Your task to perform on an android device: Go to wifi settings Image 0: 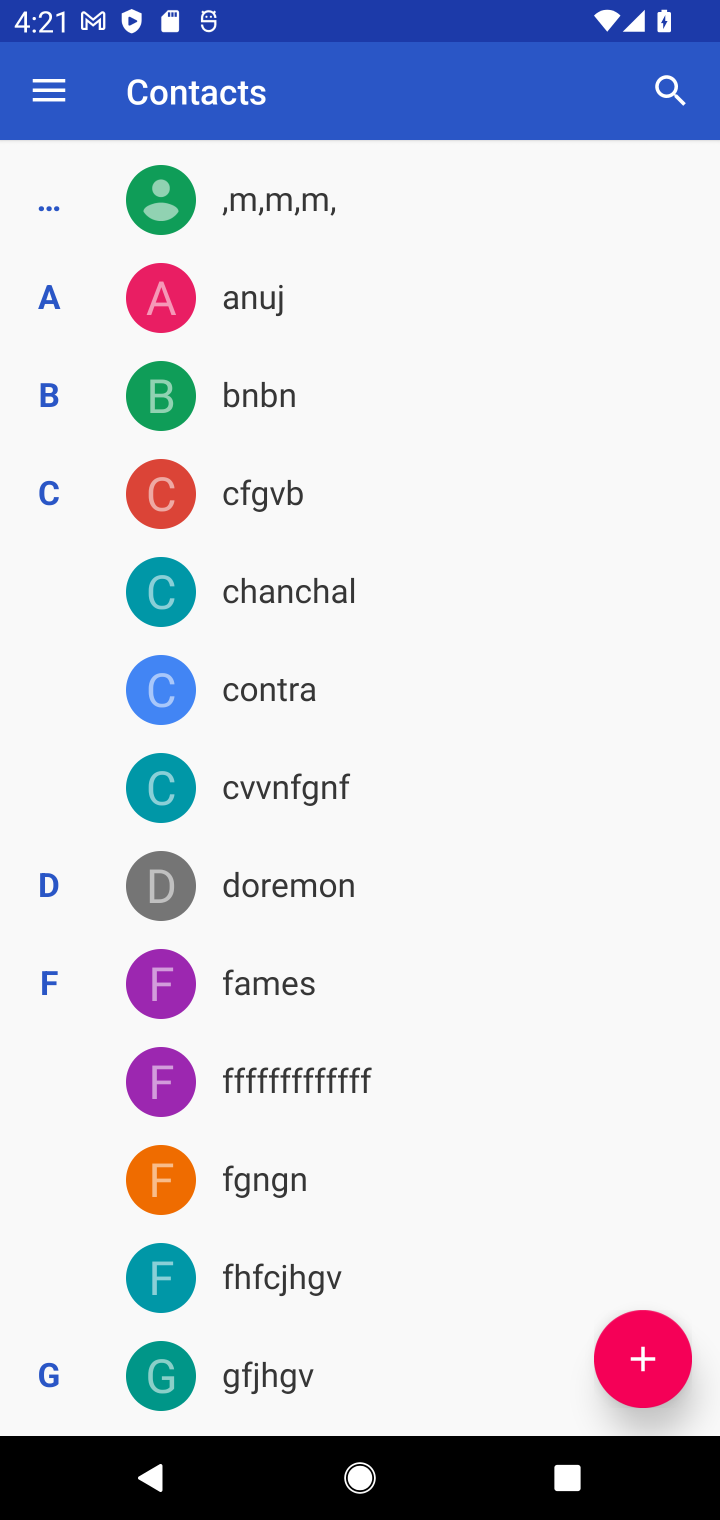
Step 0: press home button
Your task to perform on an android device: Go to wifi settings Image 1: 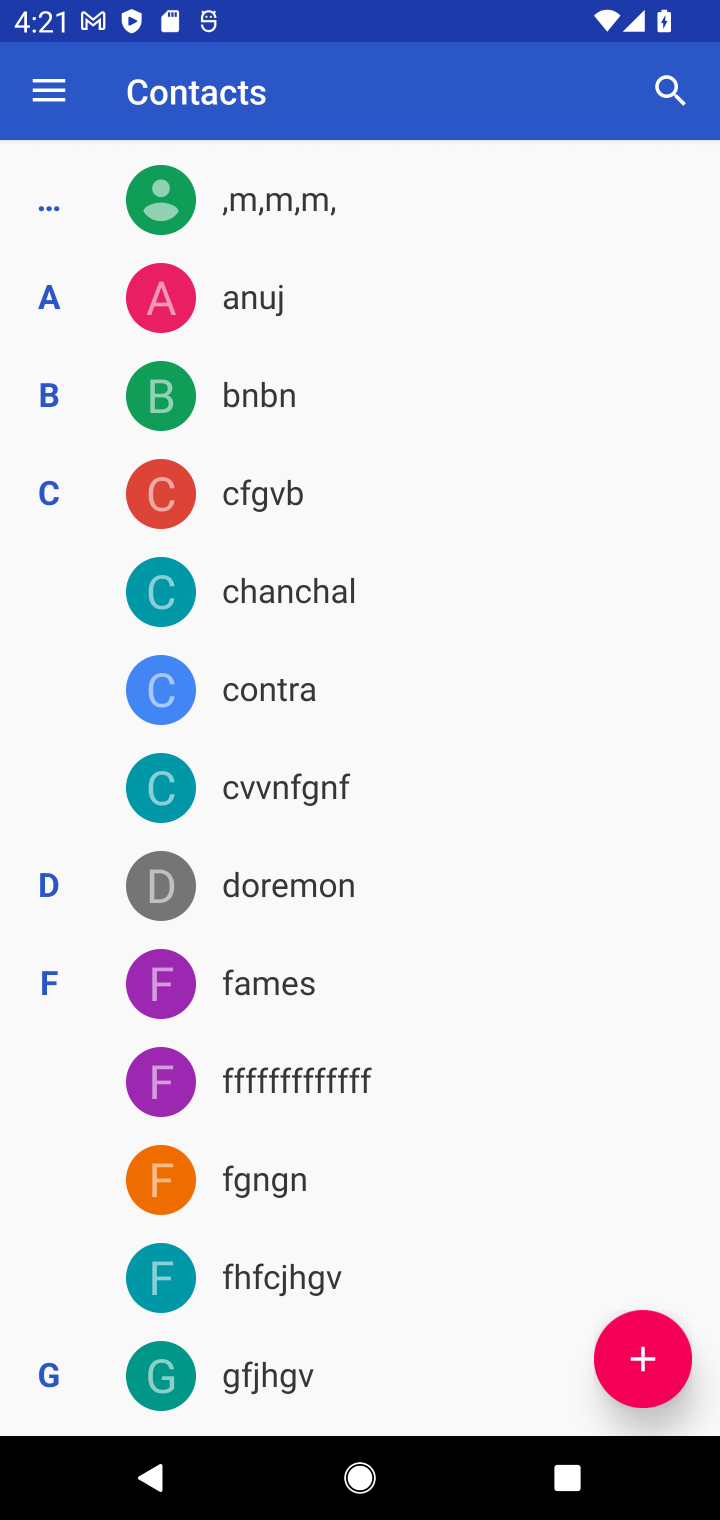
Step 1: press home button
Your task to perform on an android device: Go to wifi settings Image 2: 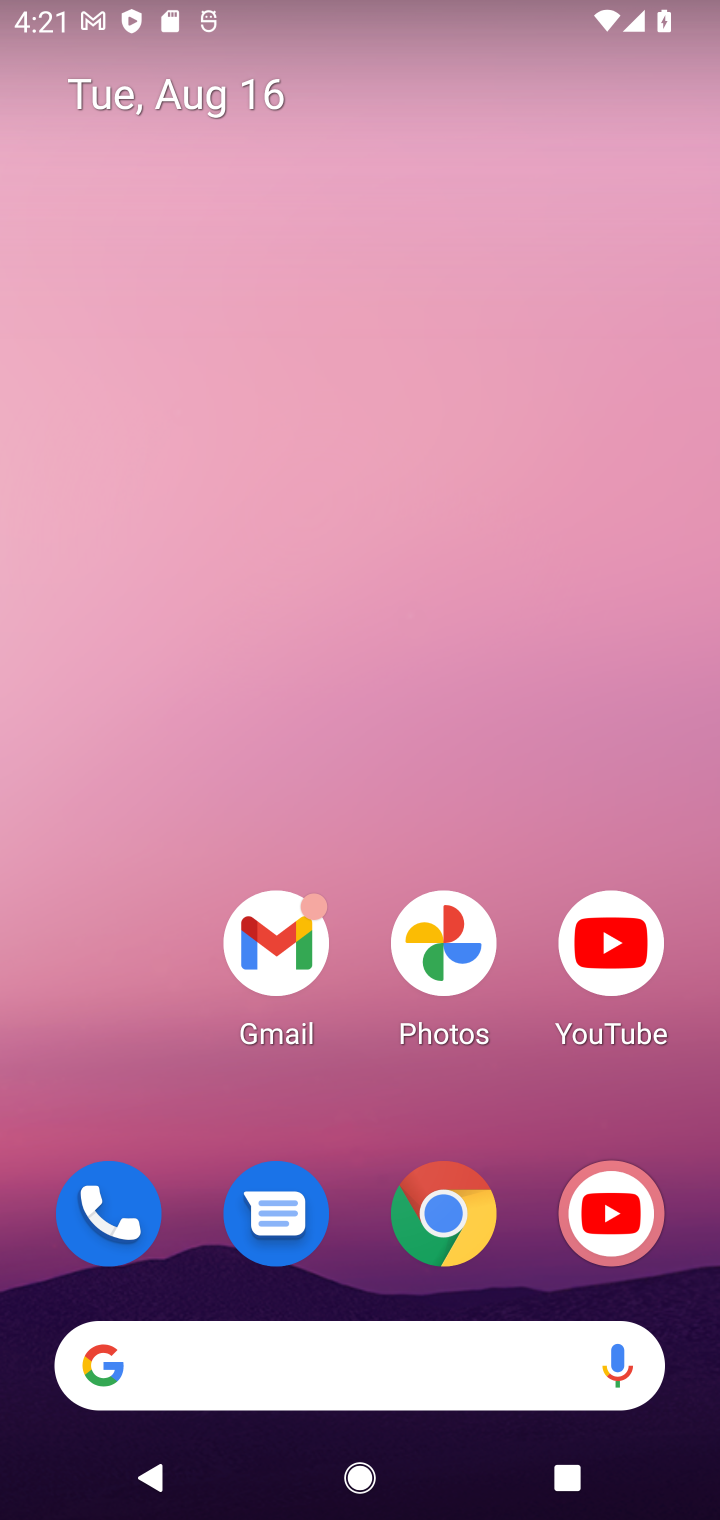
Step 2: drag from (396, 1102) to (422, 1)
Your task to perform on an android device: Go to wifi settings Image 3: 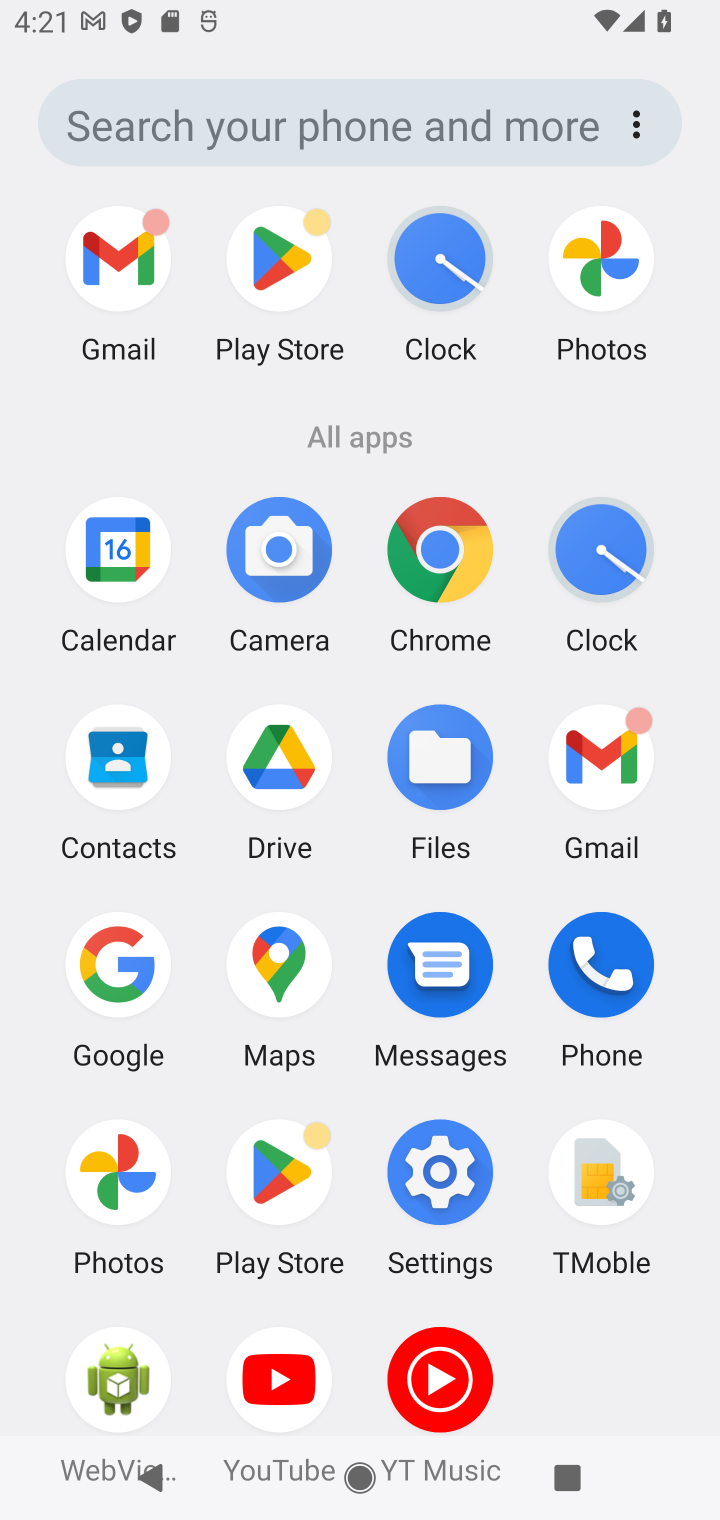
Step 3: click (453, 1158)
Your task to perform on an android device: Go to wifi settings Image 4: 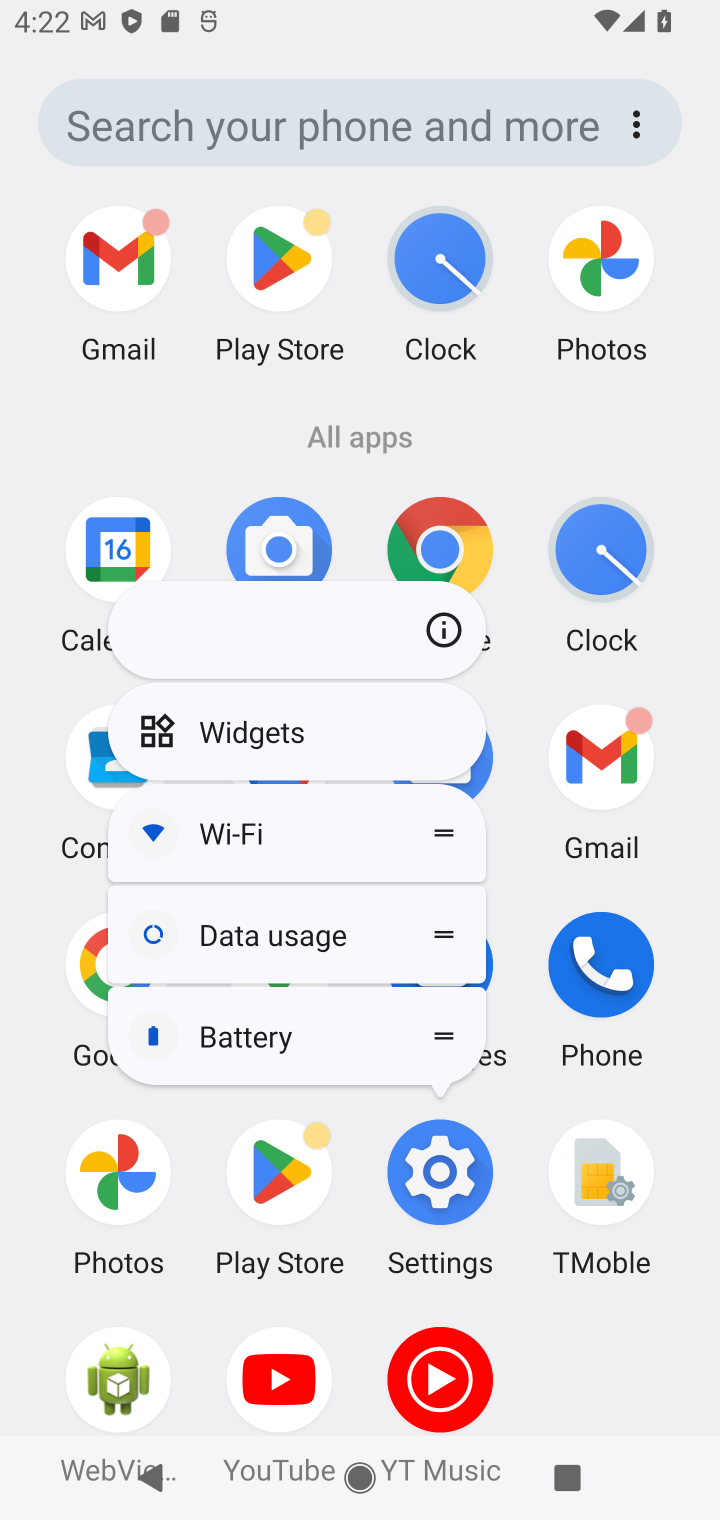
Step 4: click (453, 1158)
Your task to perform on an android device: Go to wifi settings Image 5: 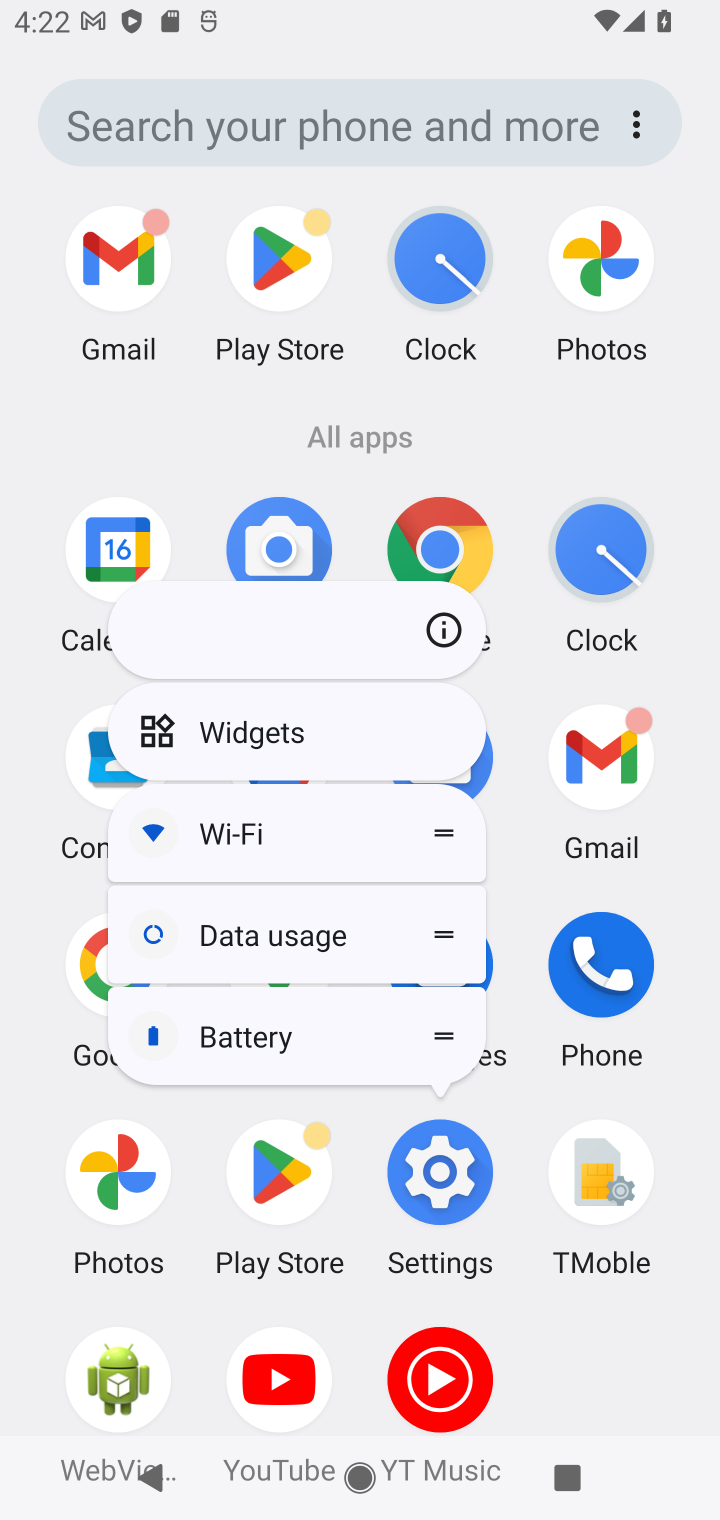
Step 5: click (422, 1167)
Your task to perform on an android device: Go to wifi settings Image 6: 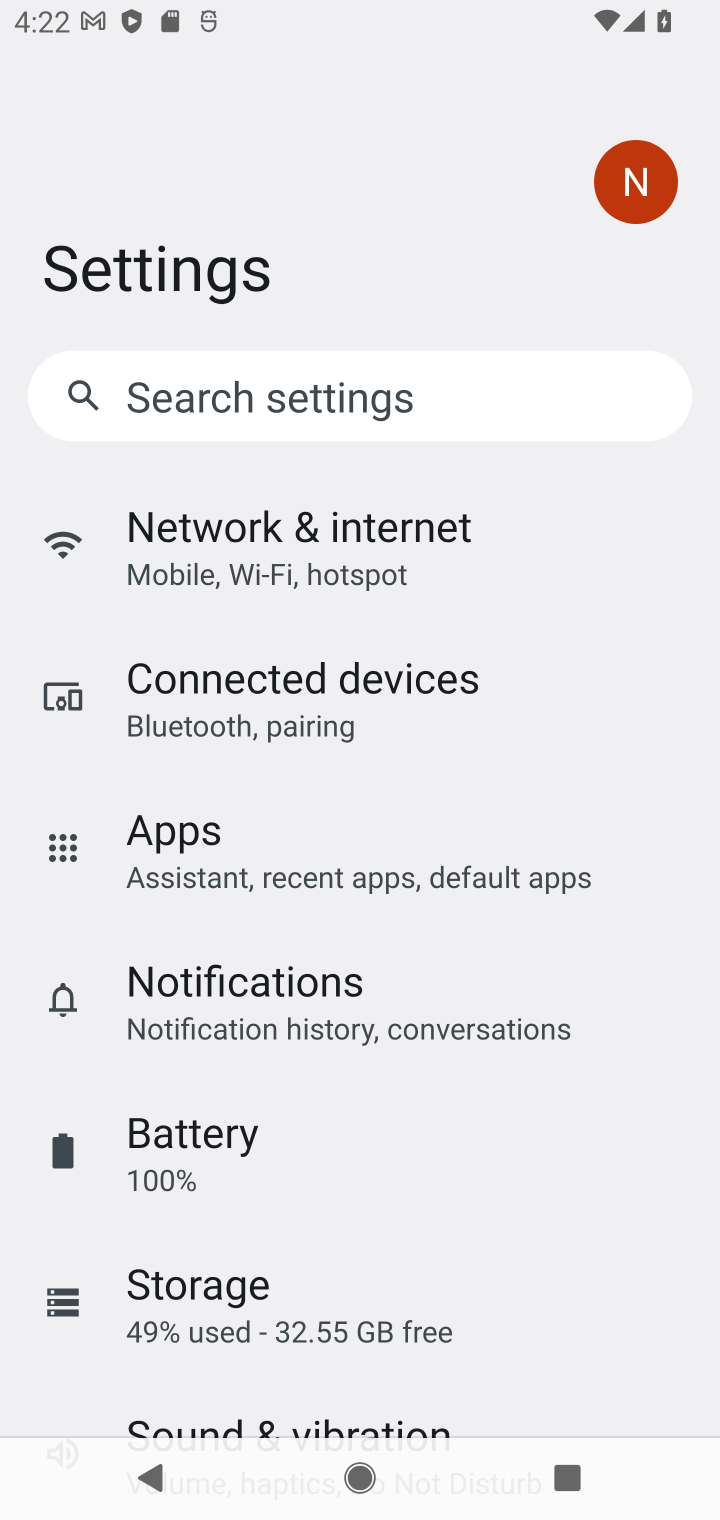
Step 6: click (325, 537)
Your task to perform on an android device: Go to wifi settings Image 7: 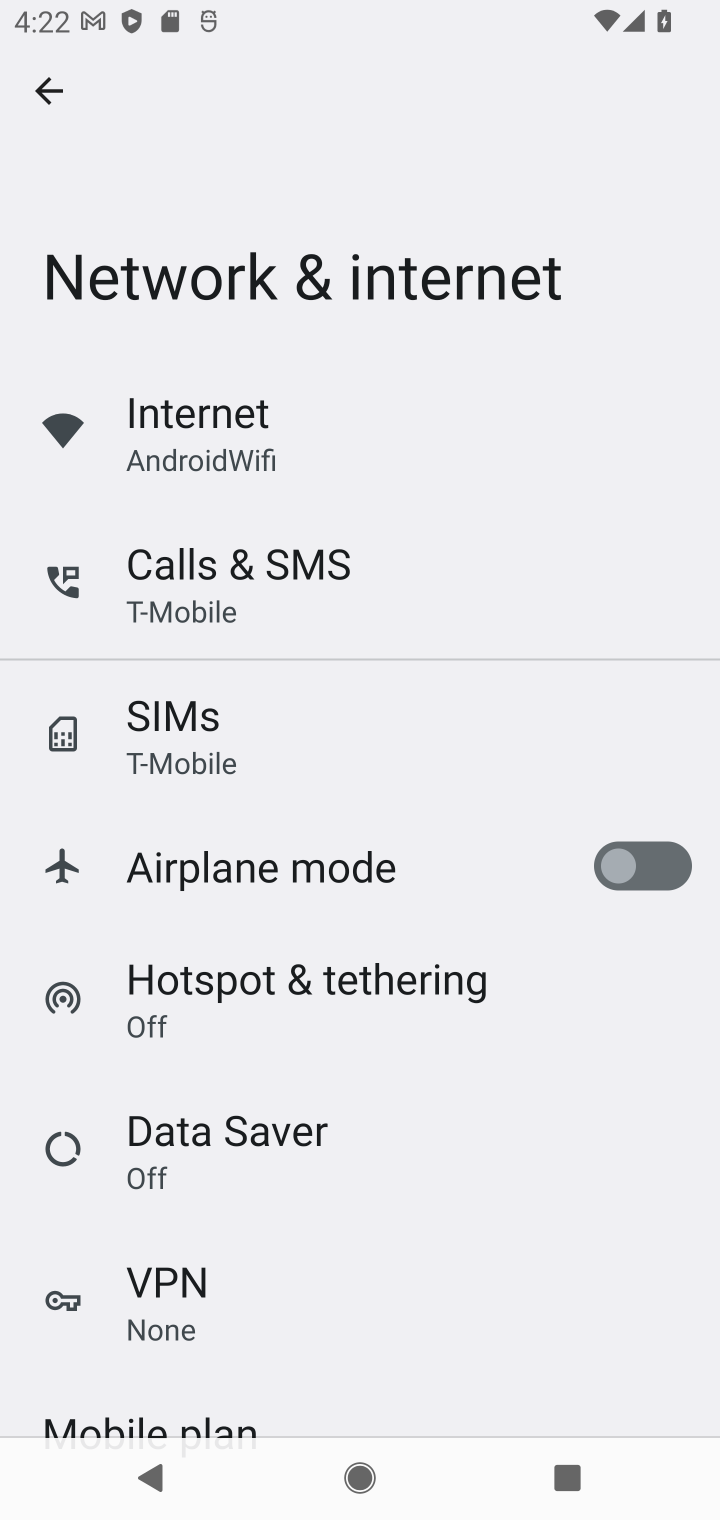
Step 7: click (229, 445)
Your task to perform on an android device: Go to wifi settings Image 8: 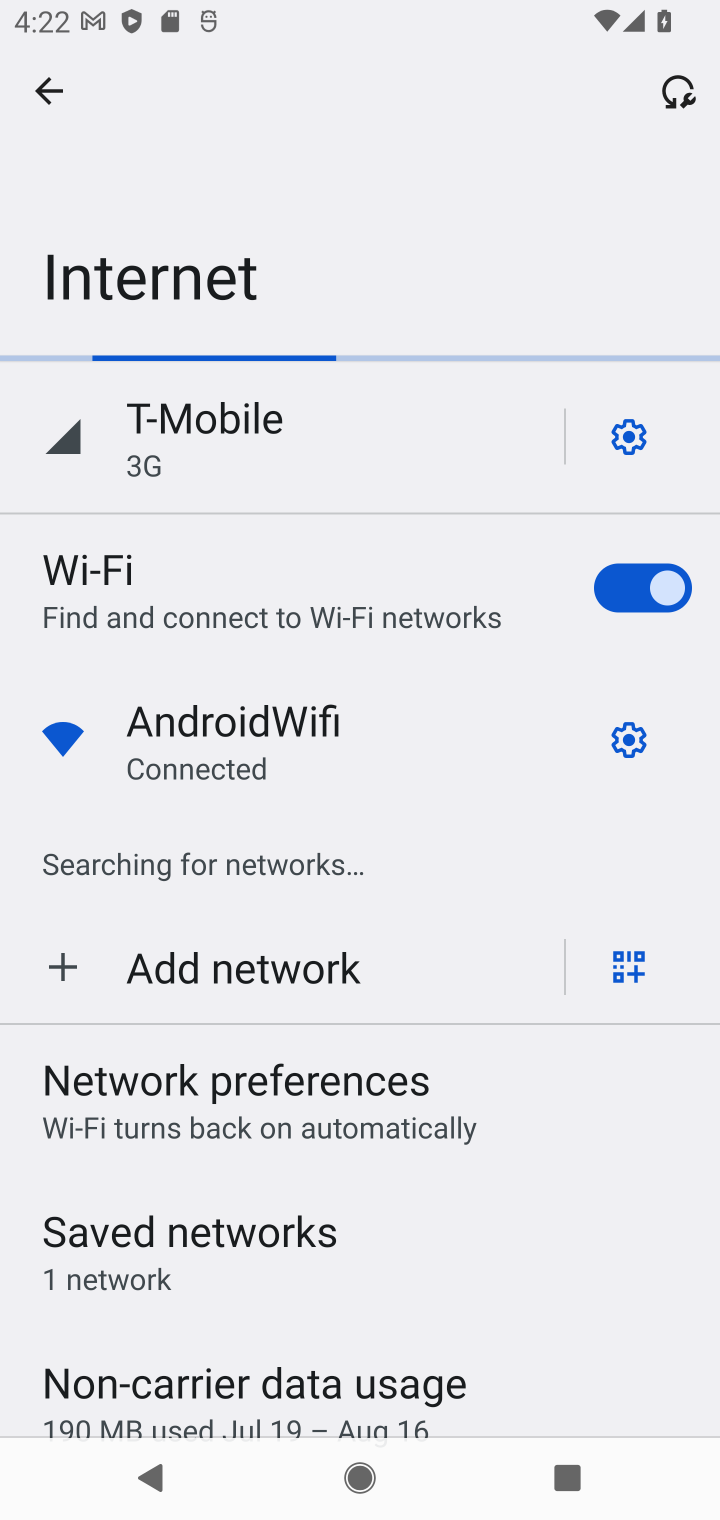
Step 8: click (624, 730)
Your task to perform on an android device: Go to wifi settings Image 9: 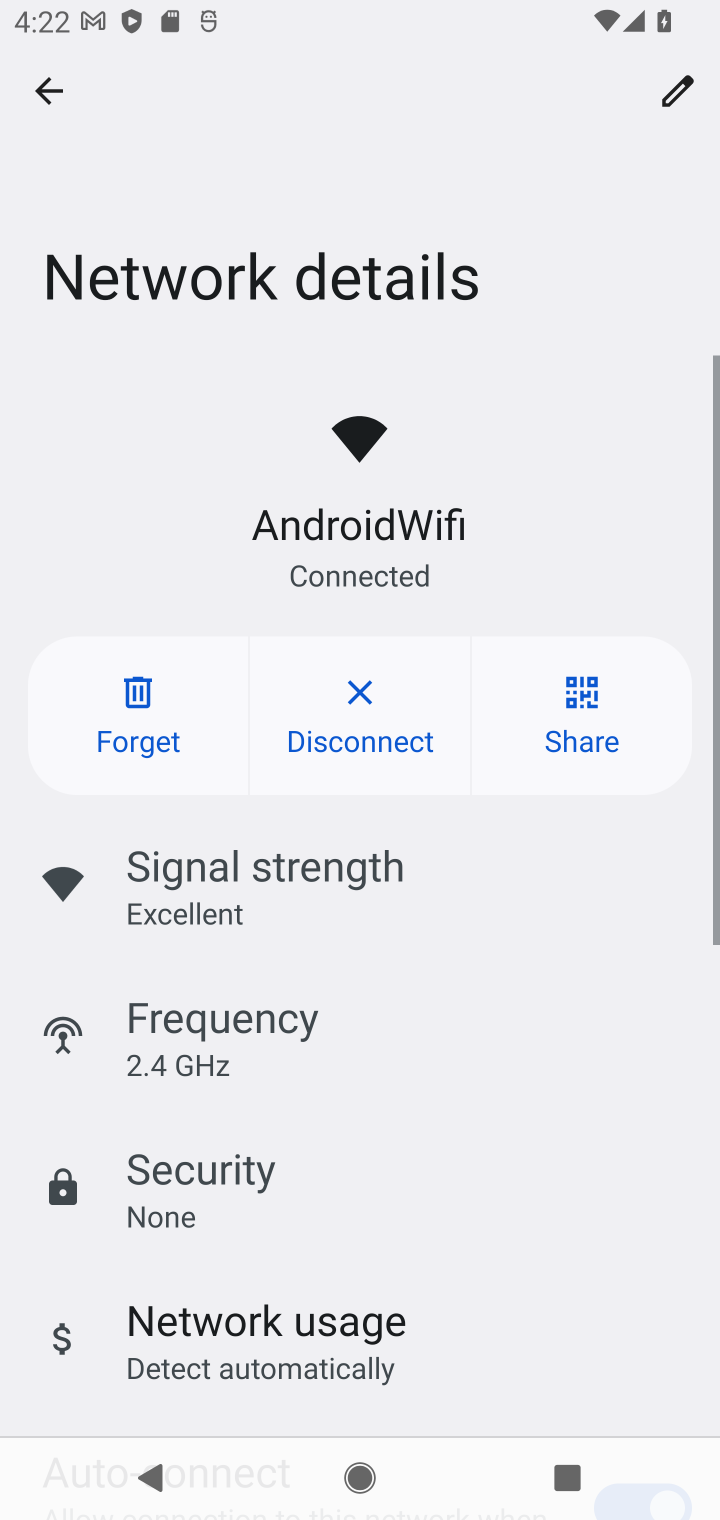
Step 9: task complete